Your task to perform on an android device: Search for Mexican restaurants on Maps Image 0: 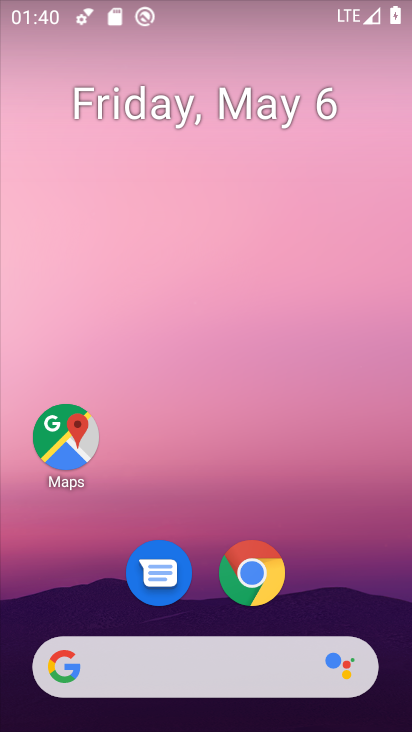
Step 0: drag from (341, 449) to (341, 243)
Your task to perform on an android device: Search for Mexican restaurants on Maps Image 1: 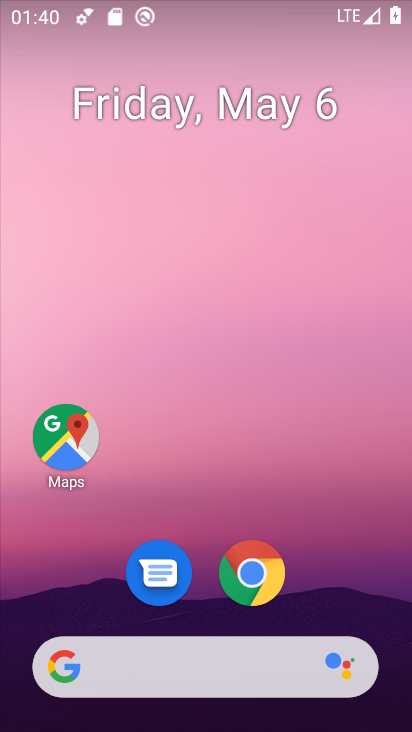
Step 1: drag from (310, 591) to (326, 263)
Your task to perform on an android device: Search for Mexican restaurants on Maps Image 2: 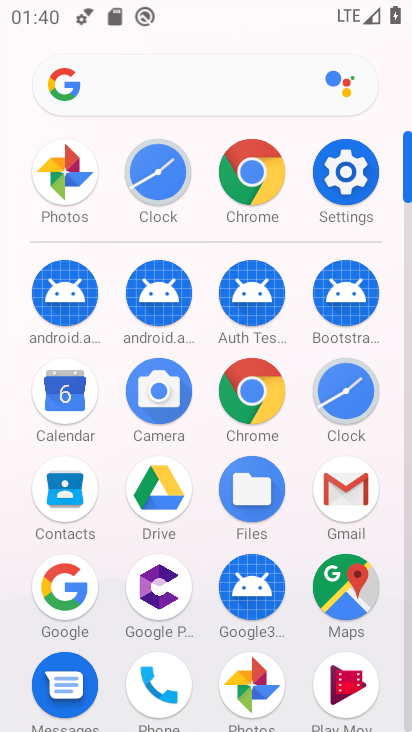
Step 2: click (345, 581)
Your task to perform on an android device: Search for Mexican restaurants on Maps Image 3: 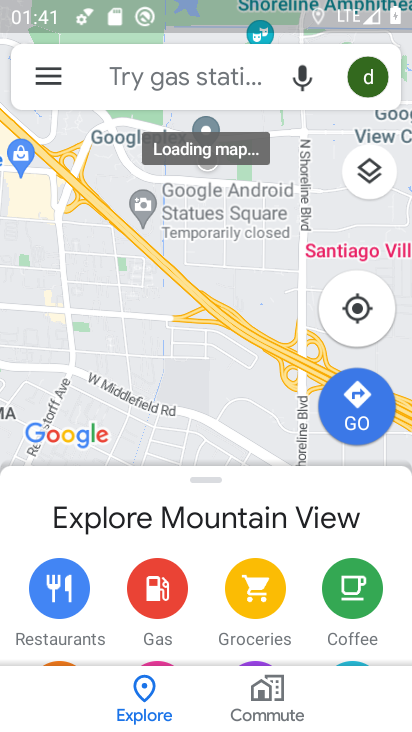
Step 3: click (215, 75)
Your task to perform on an android device: Search for Mexican restaurants on Maps Image 4: 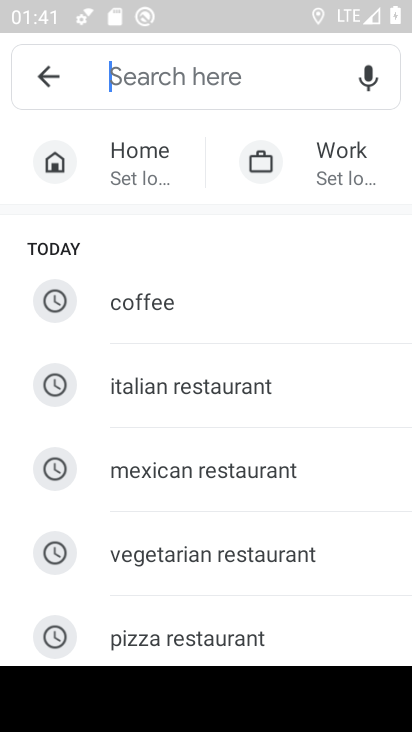
Step 4: click (193, 476)
Your task to perform on an android device: Search for Mexican restaurants on Maps Image 5: 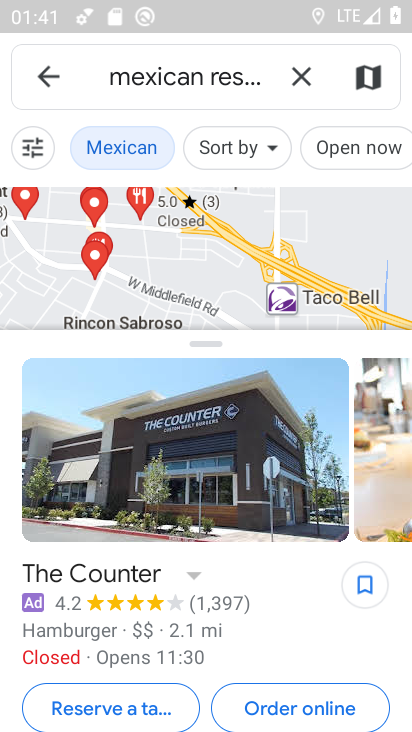
Step 5: task complete